Your task to perform on an android device: change text size in settings app Image 0: 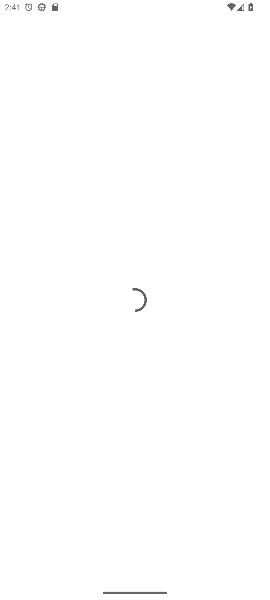
Step 0: press home button
Your task to perform on an android device: change text size in settings app Image 1: 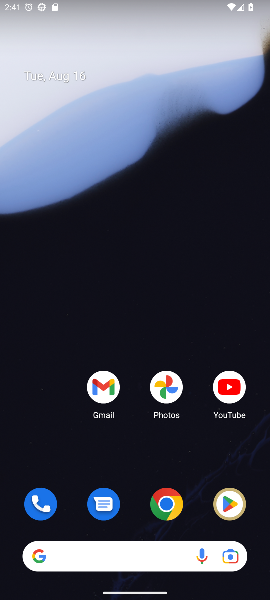
Step 1: drag from (125, 471) to (141, 173)
Your task to perform on an android device: change text size in settings app Image 2: 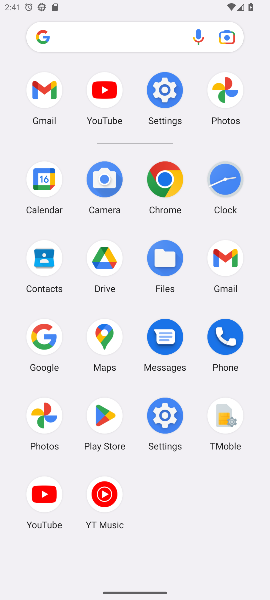
Step 2: click (163, 88)
Your task to perform on an android device: change text size in settings app Image 3: 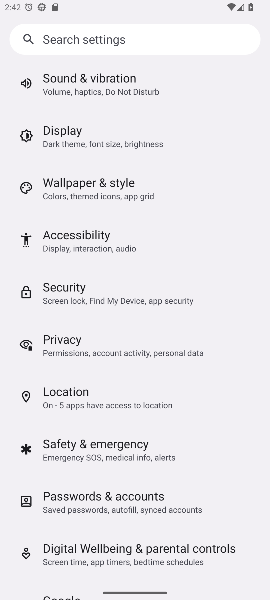
Step 3: drag from (188, 134) to (169, 292)
Your task to perform on an android device: change text size in settings app Image 4: 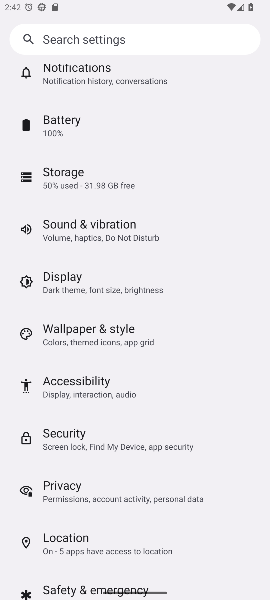
Step 4: click (63, 269)
Your task to perform on an android device: change text size in settings app Image 5: 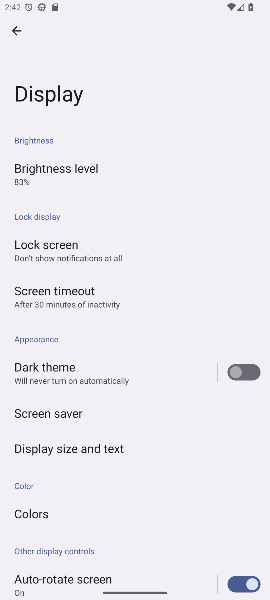
Step 5: drag from (120, 495) to (140, 327)
Your task to perform on an android device: change text size in settings app Image 6: 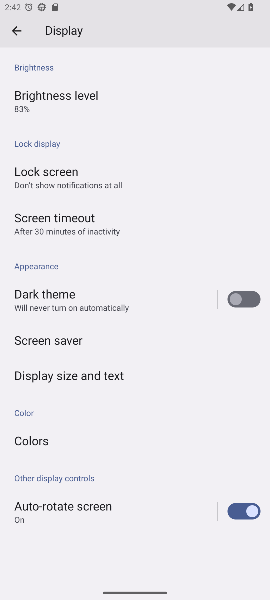
Step 6: click (66, 380)
Your task to perform on an android device: change text size in settings app Image 7: 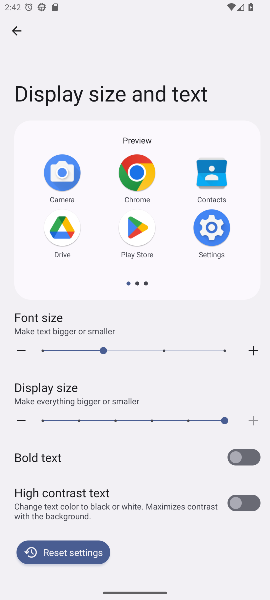
Step 7: click (134, 350)
Your task to perform on an android device: change text size in settings app Image 8: 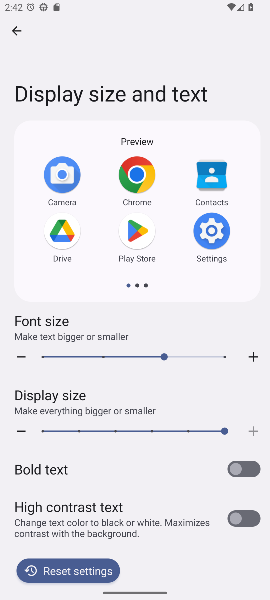
Step 8: task complete